Your task to perform on an android device: See recent photos Image 0: 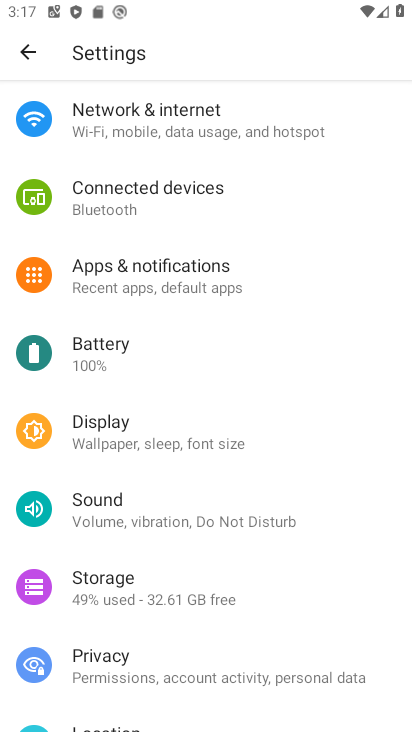
Step 0: press home button
Your task to perform on an android device: See recent photos Image 1: 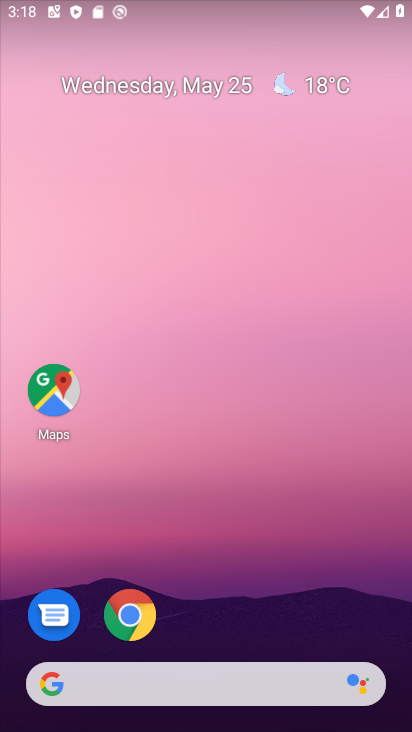
Step 1: drag from (273, 601) to (208, 47)
Your task to perform on an android device: See recent photos Image 2: 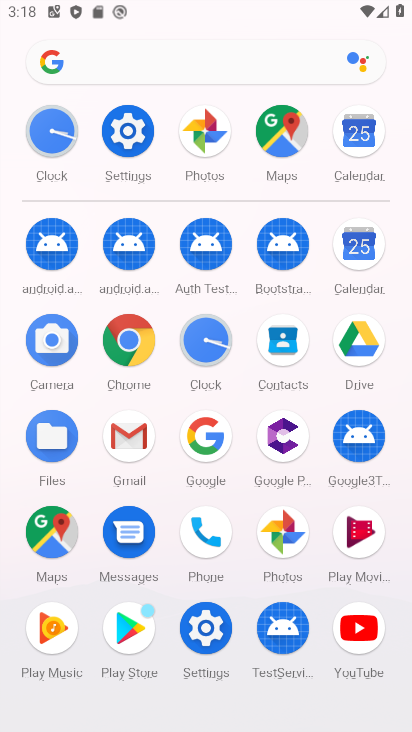
Step 2: click (284, 533)
Your task to perform on an android device: See recent photos Image 3: 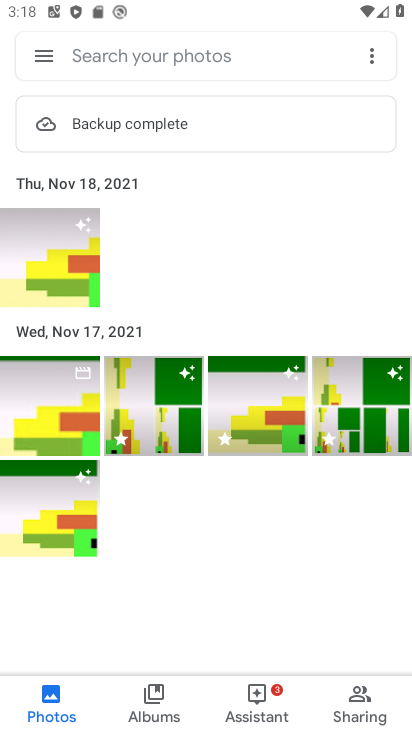
Step 3: task complete